Your task to perform on an android device: turn on notifications settings in the gmail app Image 0: 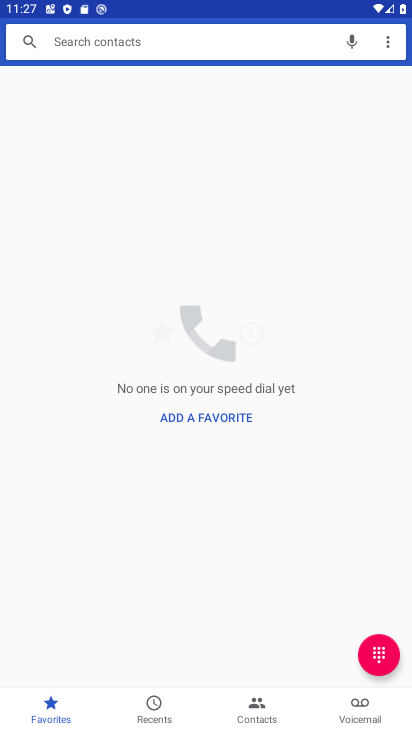
Step 0: press home button
Your task to perform on an android device: turn on notifications settings in the gmail app Image 1: 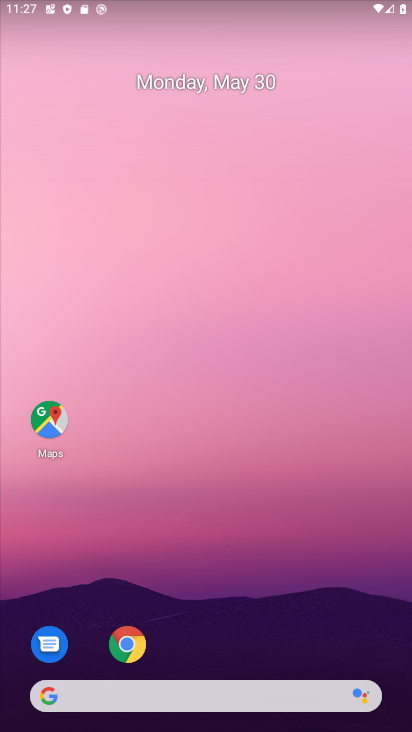
Step 1: drag from (243, 497) to (272, 330)
Your task to perform on an android device: turn on notifications settings in the gmail app Image 2: 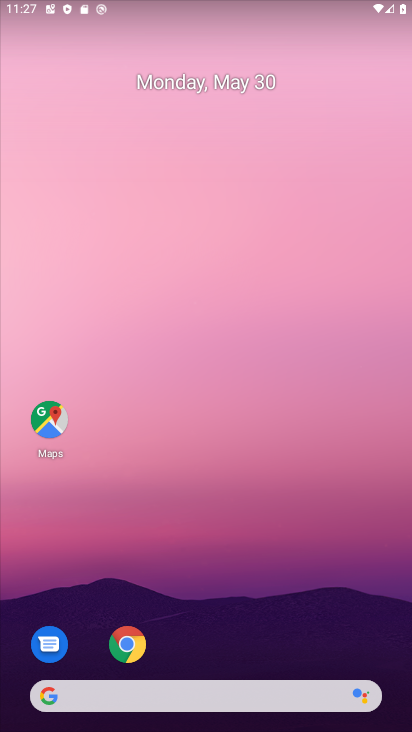
Step 2: drag from (211, 638) to (258, 276)
Your task to perform on an android device: turn on notifications settings in the gmail app Image 3: 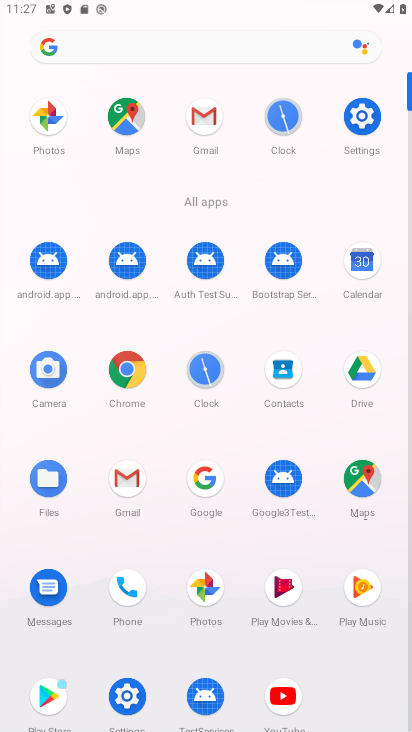
Step 3: click (132, 484)
Your task to perform on an android device: turn on notifications settings in the gmail app Image 4: 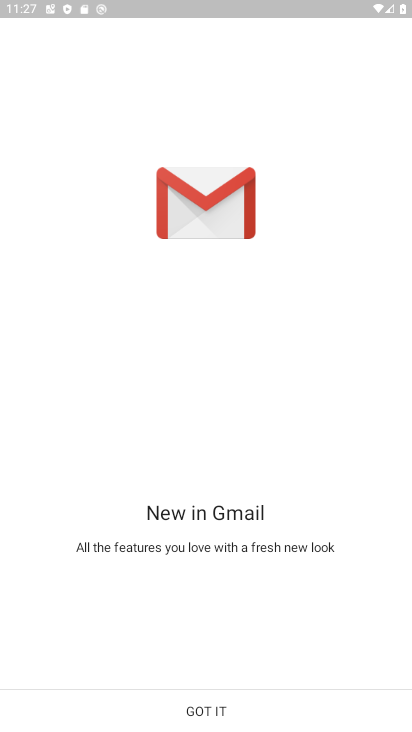
Step 4: click (225, 715)
Your task to perform on an android device: turn on notifications settings in the gmail app Image 5: 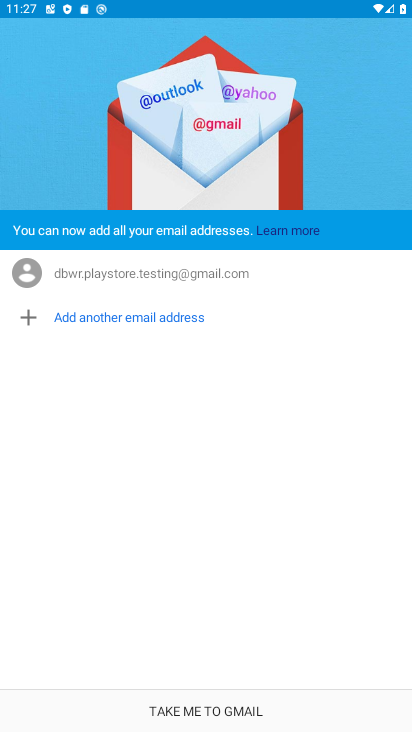
Step 5: click (222, 712)
Your task to perform on an android device: turn on notifications settings in the gmail app Image 6: 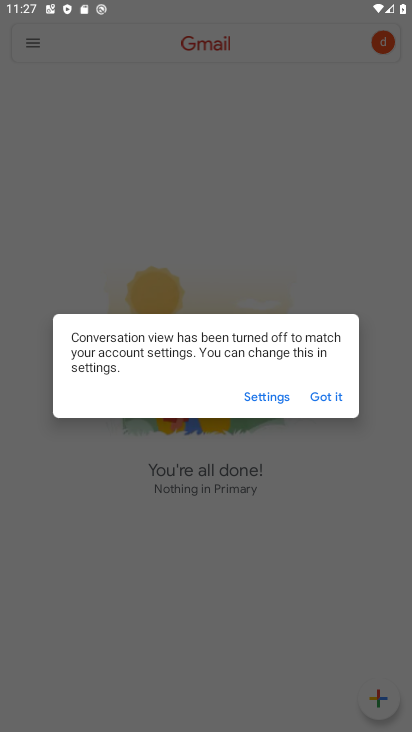
Step 6: click (324, 399)
Your task to perform on an android device: turn on notifications settings in the gmail app Image 7: 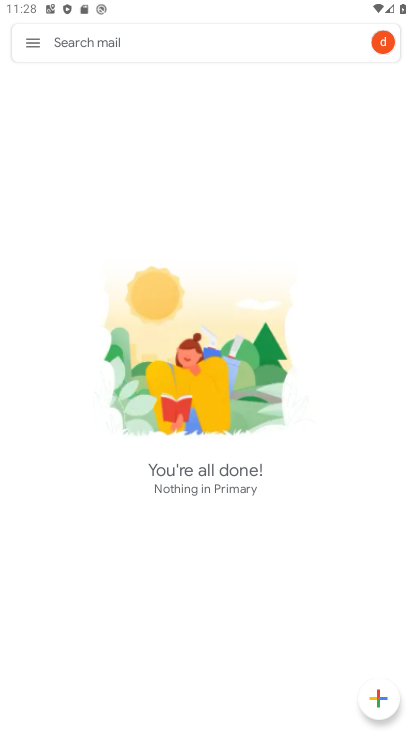
Step 7: click (34, 41)
Your task to perform on an android device: turn on notifications settings in the gmail app Image 8: 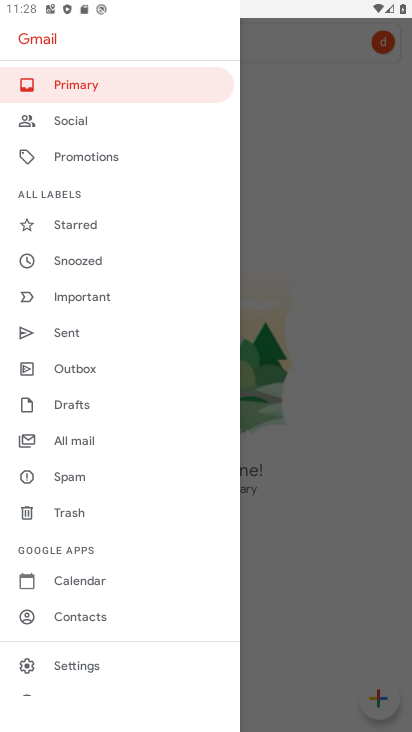
Step 8: drag from (85, 576) to (104, 389)
Your task to perform on an android device: turn on notifications settings in the gmail app Image 9: 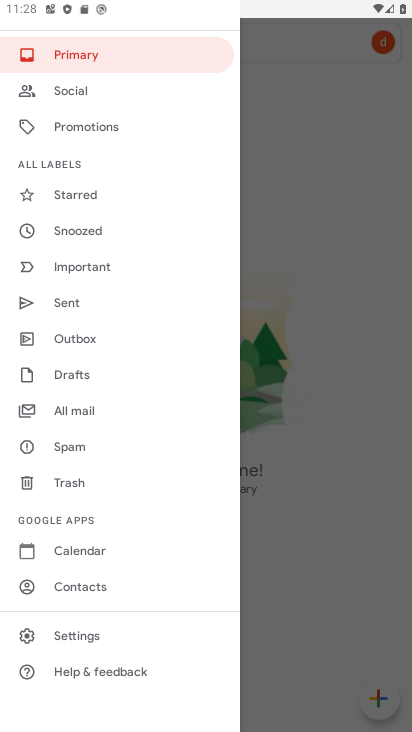
Step 9: click (79, 638)
Your task to perform on an android device: turn on notifications settings in the gmail app Image 10: 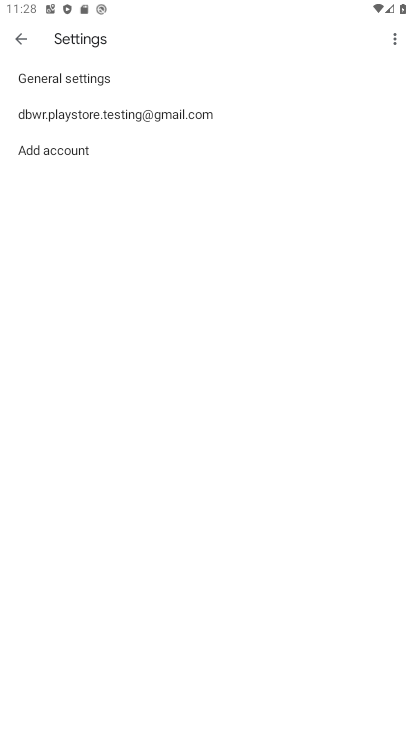
Step 10: click (70, 82)
Your task to perform on an android device: turn on notifications settings in the gmail app Image 11: 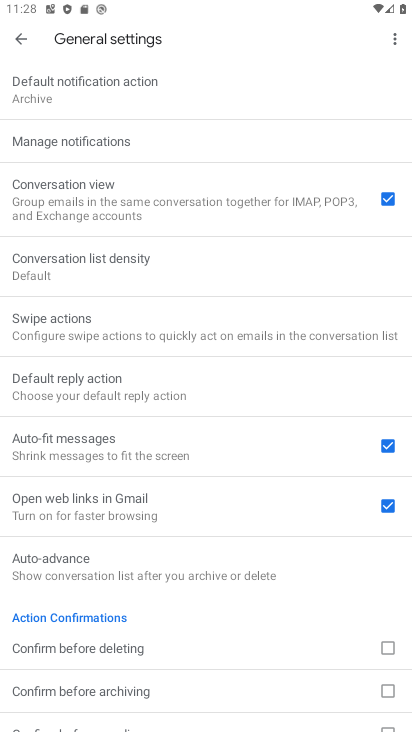
Step 11: click (102, 141)
Your task to perform on an android device: turn on notifications settings in the gmail app Image 12: 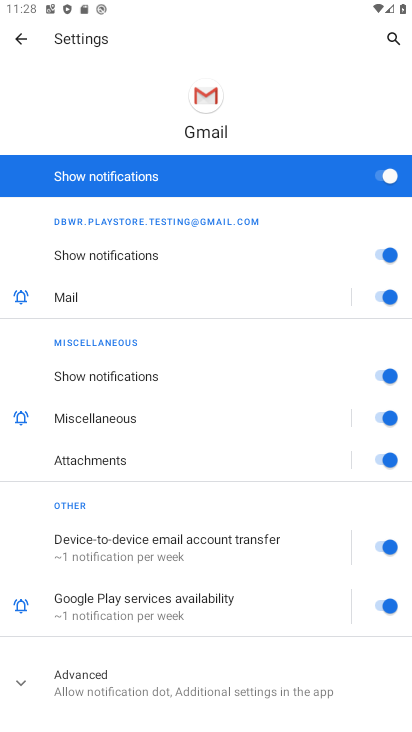
Step 12: task complete